Your task to perform on an android device: turn off translation in the chrome app Image 0: 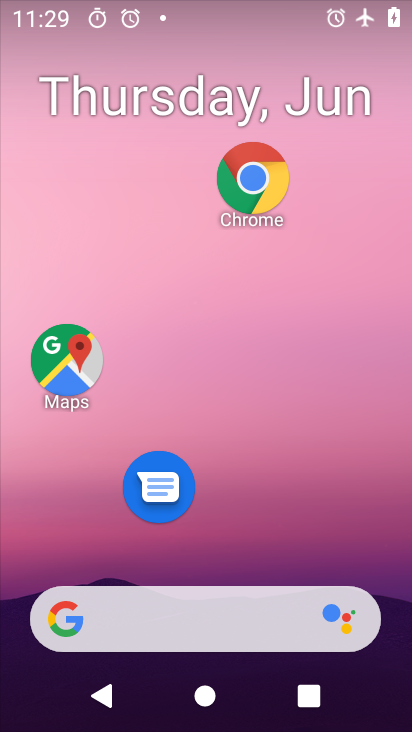
Step 0: click (255, 179)
Your task to perform on an android device: turn off translation in the chrome app Image 1: 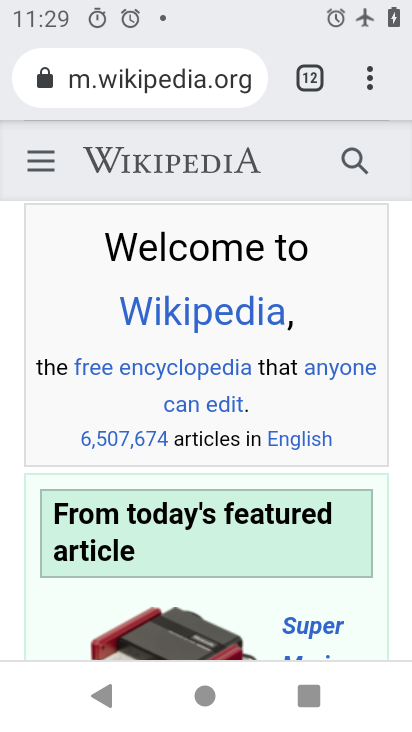
Step 1: click (370, 85)
Your task to perform on an android device: turn off translation in the chrome app Image 2: 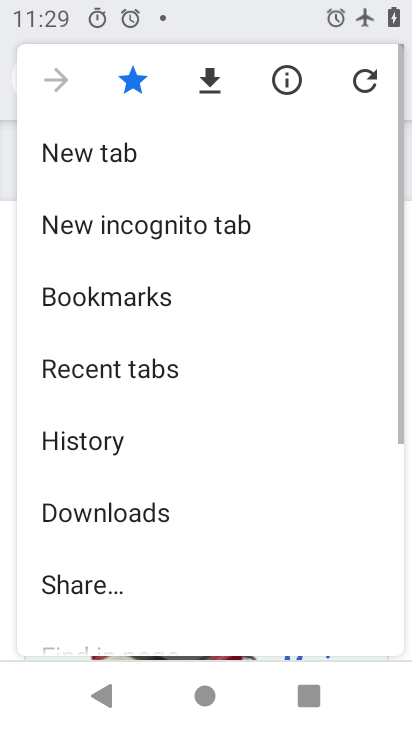
Step 2: drag from (130, 624) to (146, 190)
Your task to perform on an android device: turn off translation in the chrome app Image 3: 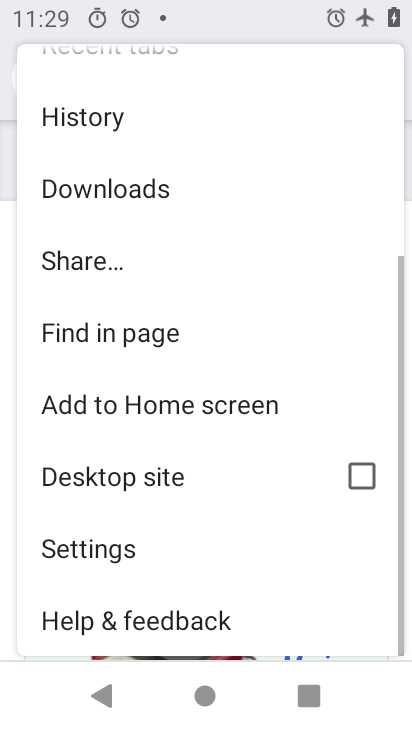
Step 3: click (94, 547)
Your task to perform on an android device: turn off translation in the chrome app Image 4: 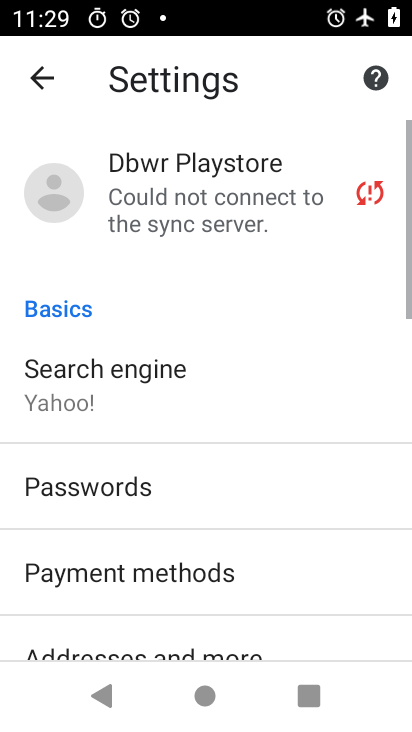
Step 4: drag from (123, 641) to (125, 249)
Your task to perform on an android device: turn off translation in the chrome app Image 5: 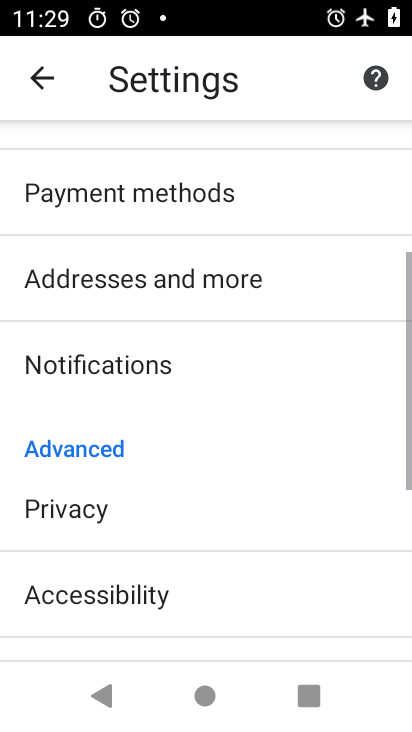
Step 5: drag from (140, 599) to (141, 168)
Your task to perform on an android device: turn off translation in the chrome app Image 6: 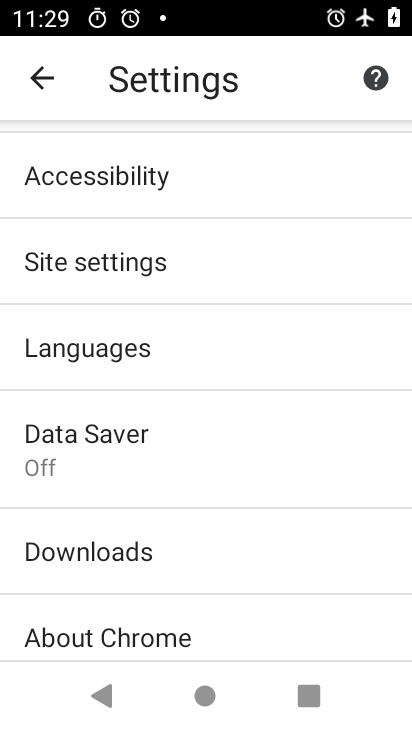
Step 6: click (94, 352)
Your task to perform on an android device: turn off translation in the chrome app Image 7: 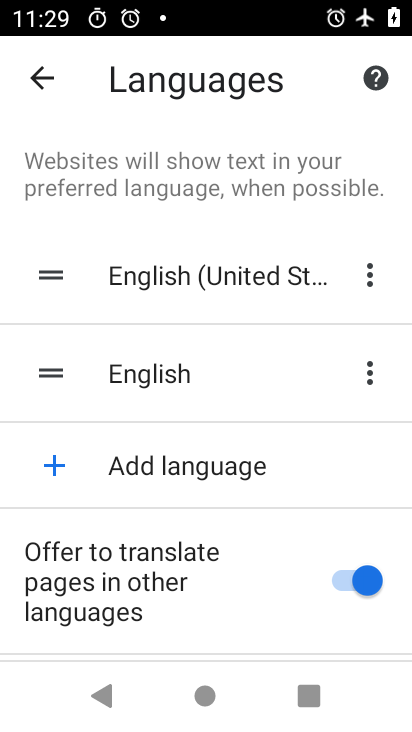
Step 7: drag from (135, 583) to (139, 246)
Your task to perform on an android device: turn off translation in the chrome app Image 8: 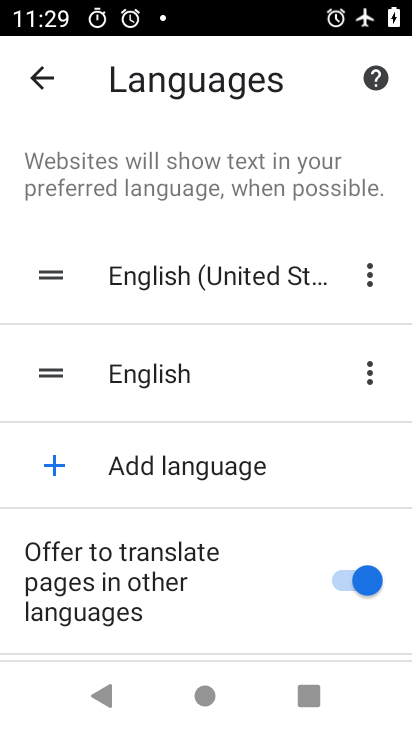
Step 8: click (350, 573)
Your task to perform on an android device: turn off translation in the chrome app Image 9: 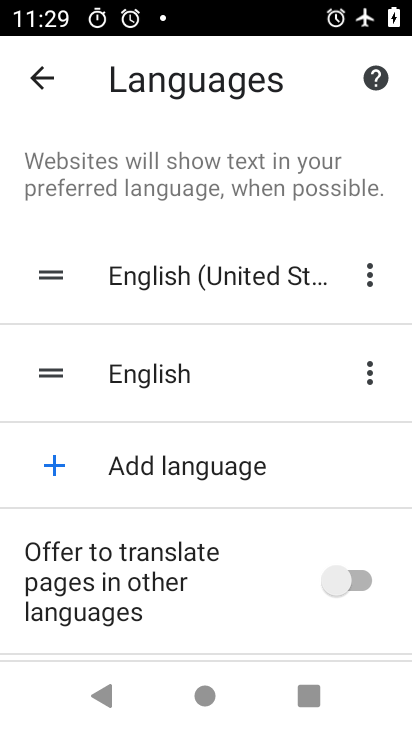
Step 9: task complete